Your task to perform on an android device: Open maps Image 0: 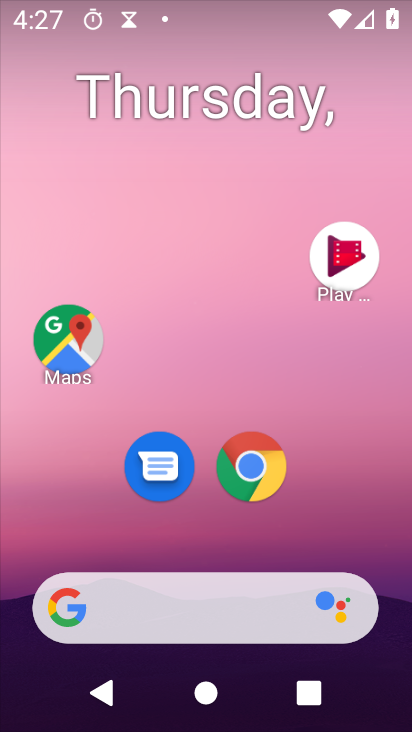
Step 0: drag from (221, 573) to (260, 15)
Your task to perform on an android device: Open maps Image 1: 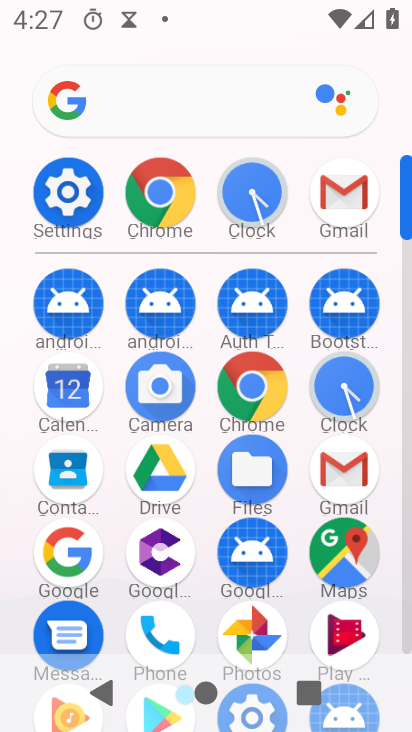
Step 1: click (334, 550)
Your task to perform on an android device: Open maps Image 2: 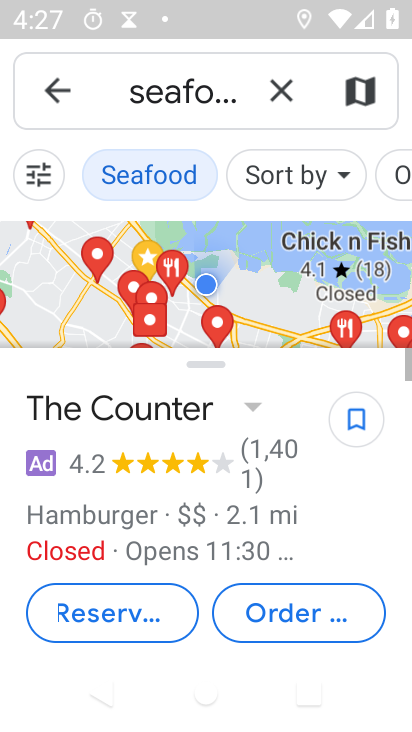
Step 2: task complete